Your task to perform on an android device: turn on improve location accuracy Image 0: 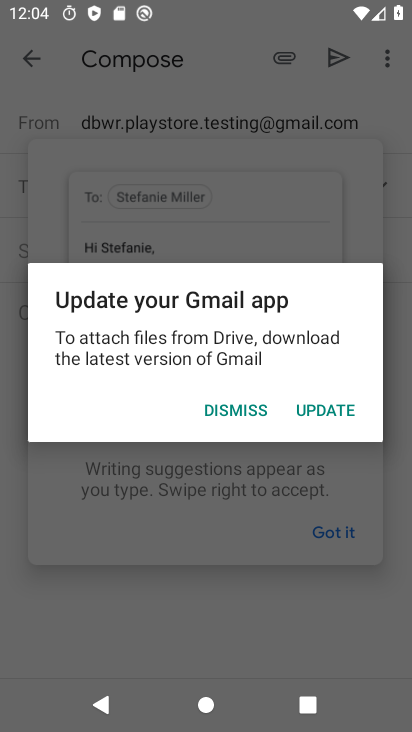
Step 0: press back button
Your task to perform on an android device: turn on improve location accuracy Image 1: 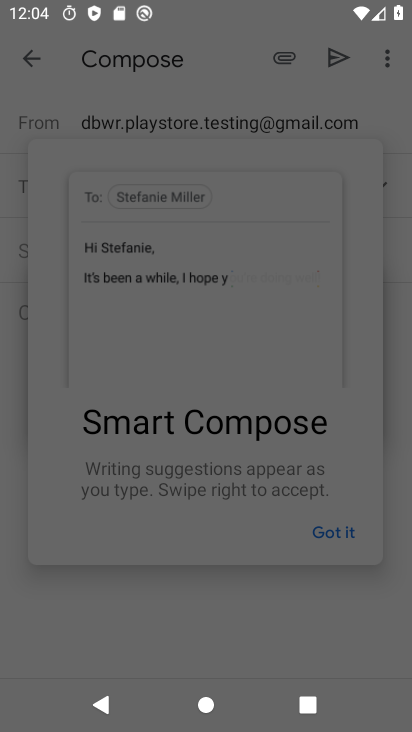
Step 1: press home button
Your task to perform on an android device: turn on improve location accuracy Image 2: 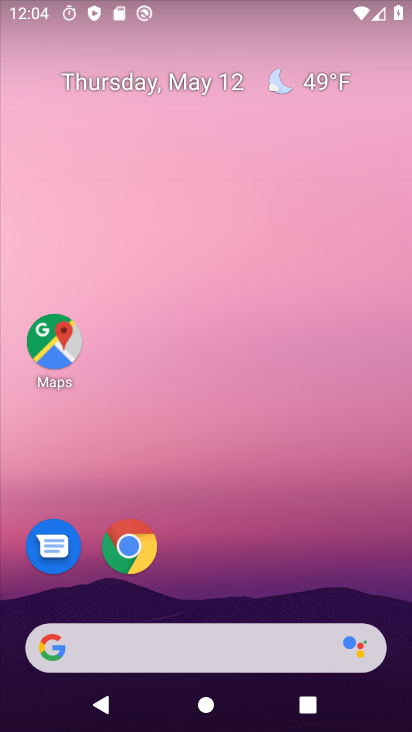
Step 2: drag from (174, 623) to (269, 149)
Your task to perform on an android device: turn on improve location accuracy Image 3: 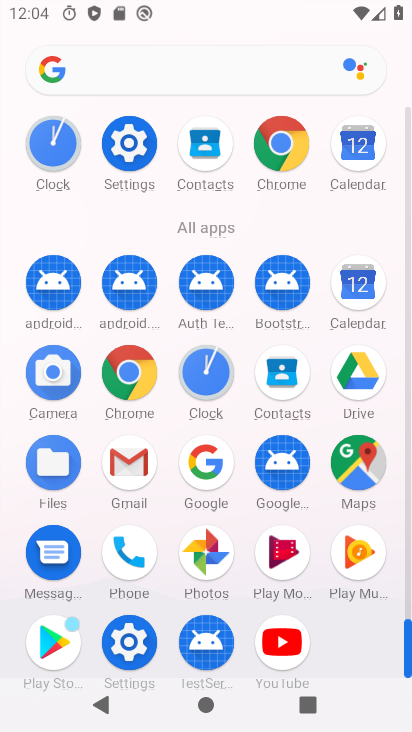
Step 3: click (132, 643)
Your task to perform on an android device: turn on improve location accuracy Image 4: 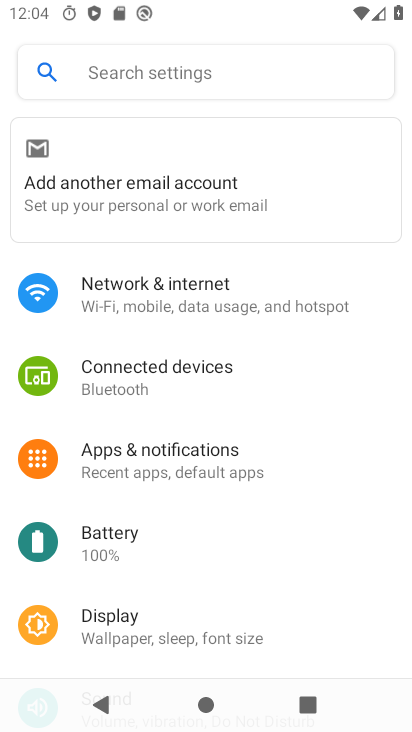
Step 4: drag from (192, 613) to (308, 238)
Your task to perform on an android device: turn on improve location accuracy Image 5: 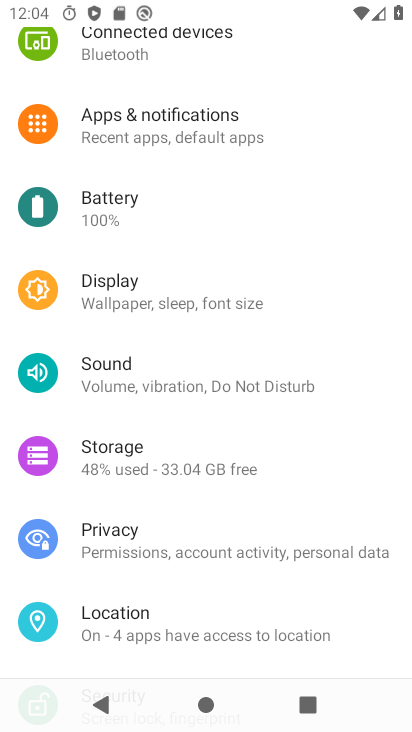
Step 5: click (173, 620)
Your task to perform on an android device: turn on improve location accuracy Image 6: 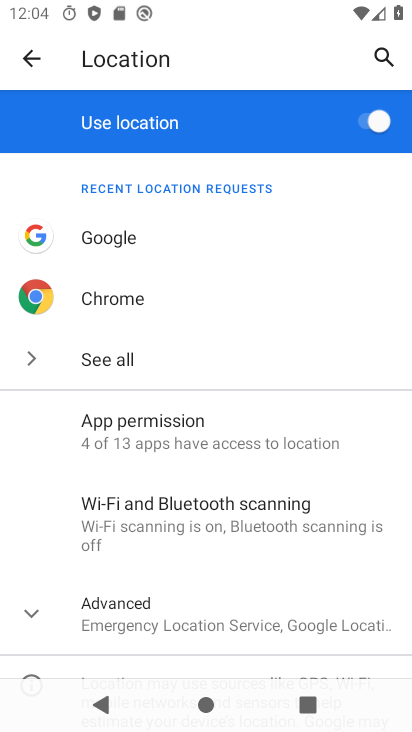
Step 6: drag from (196, 653) to (242, 453)
Your task to perform on an android device: turn on improve location accuracy Image 7: 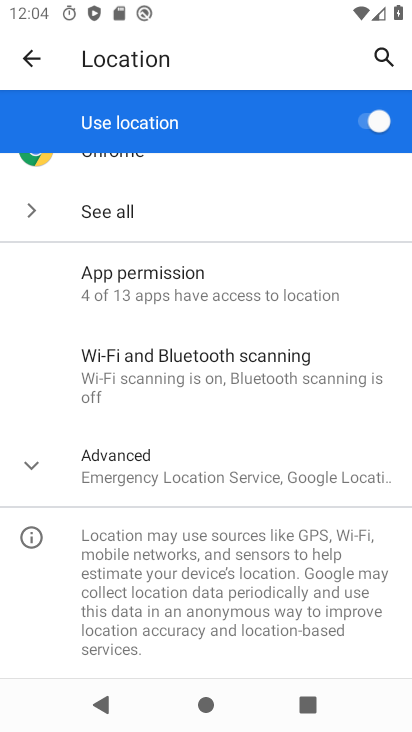
Step 7: click (204, 468)
Your task to perform on an android device: turn on improve location accuracy Image 8: 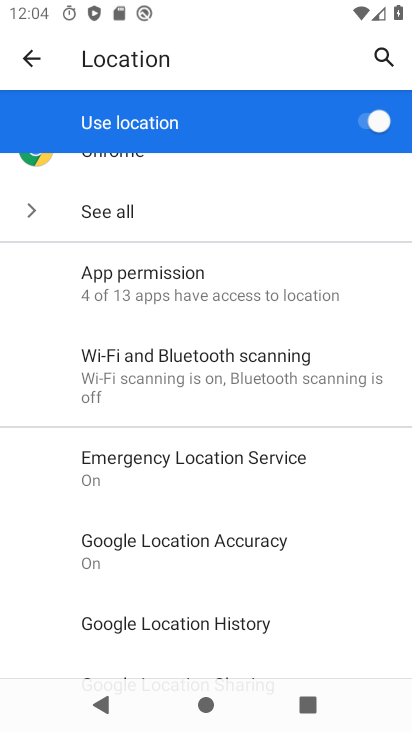
Step 8: drag from (161, 596) to (193, 439)
Your task to perform on an android device: turn on improve location accuracy Image 9: 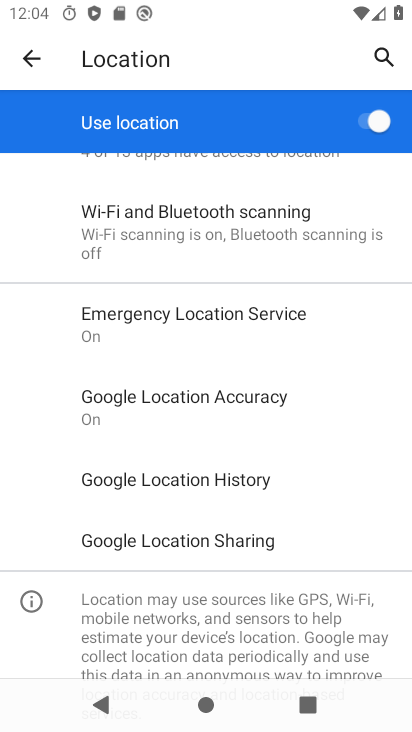
Step 9: click (212, 397)
Your task to perform on an android device: turn on improve location accuracy Image 10: 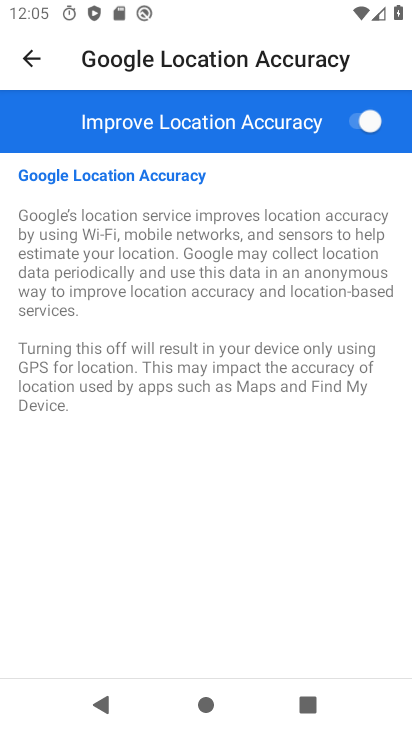
Step 10: task complete